Your task to perform on an android device: turn on javascript in the chrome app Image 0: 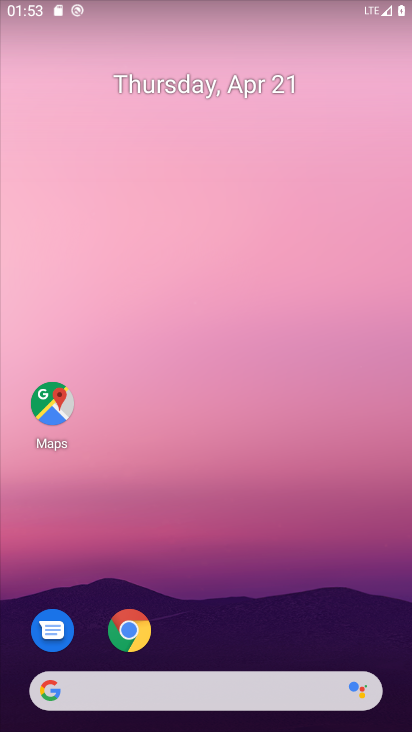
Step 0: click (137, 638)
Your task to perform on an android device: turn on javascript in the chrome app Image 1: 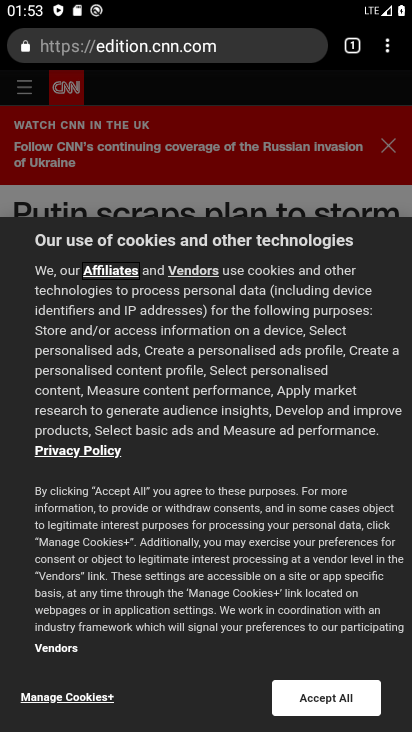
Step 1: click (320, 705)
Your task to perform on an android device: turn on javascript in the chrome app Image 2: 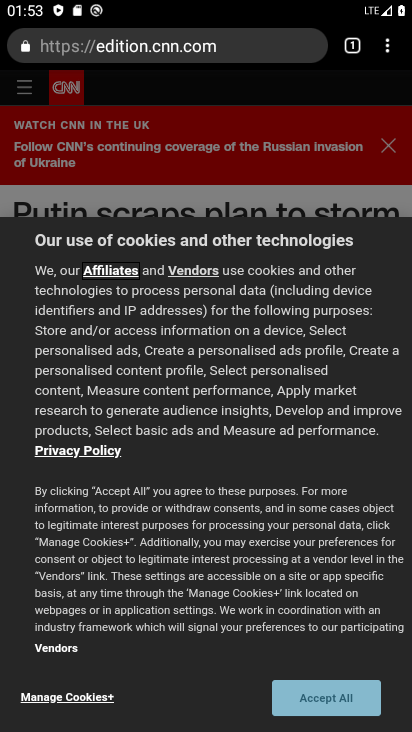
Step 2: click (379, 58)
Your task to perform on an android device: turn on javascript in the chrome app Image 3: 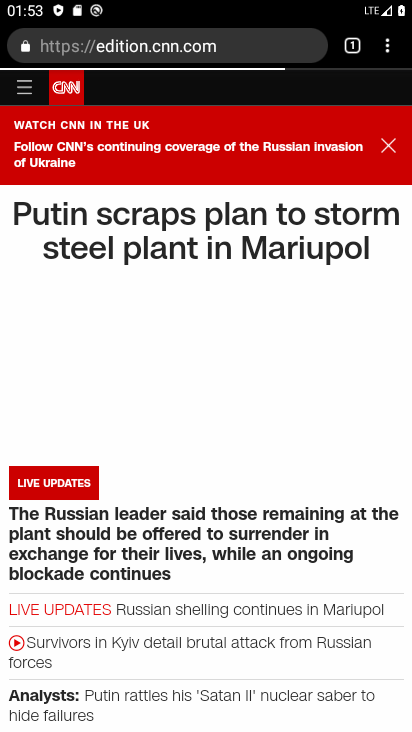
Step 3: click (387, 55)
Your task to perform on an android device: turn on javascript in the chrome app Image 4: 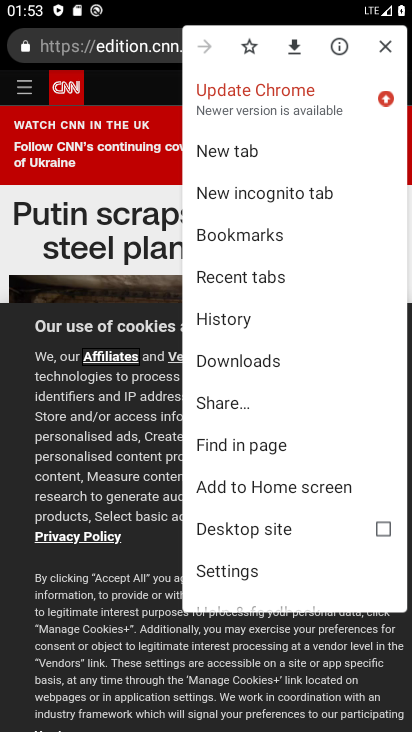
Step 4: click (272, 576)
Your task to perform on an android device: turn on javascript in the chrome app Image 5: 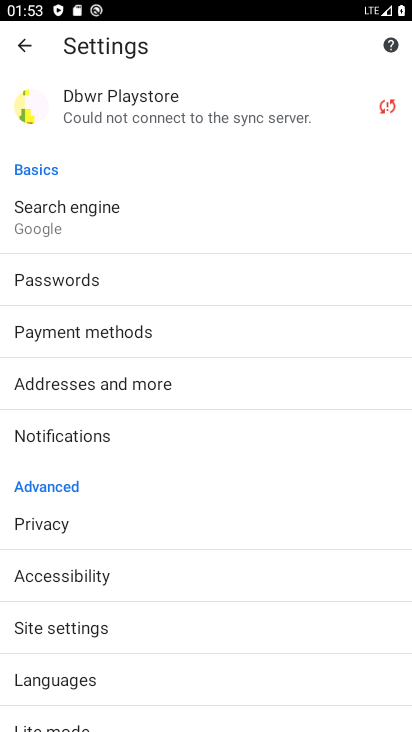
Step 5: click (221, 635)
Your task to perform on an android device: turn on javascript in the chrome app Image 6: 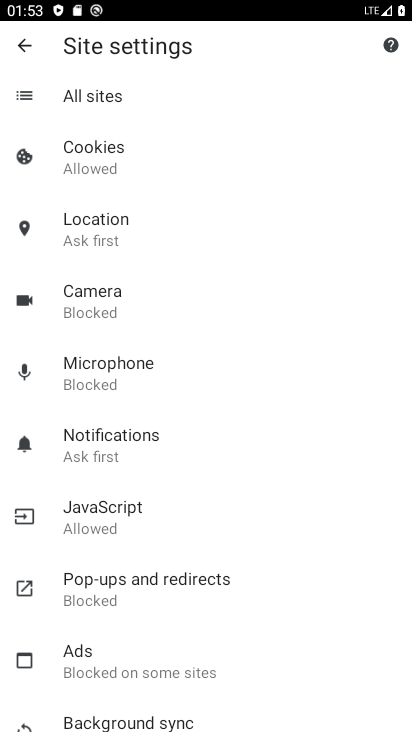
Step 6: click (199, 522)
Your task to perform on an android device: turn on javascript in the chrome app Image 7: 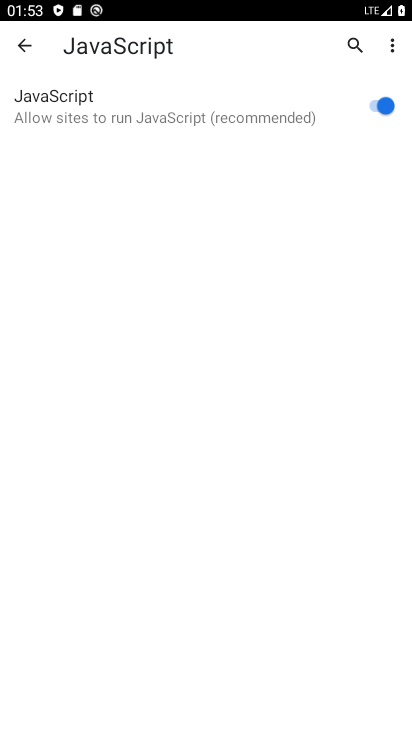
Step 7: task complete